Your task to perform on an android device: Go to settings Image 0: 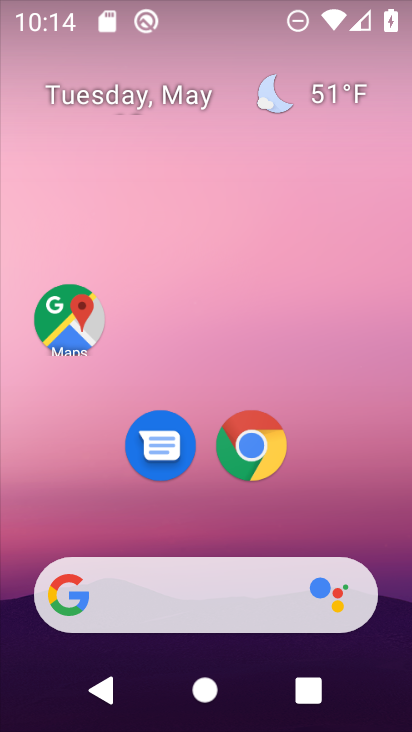
Step 0: drag from (160, 575) to (95, 72)
Your task to perform on an android device: Go to settings Image 1: 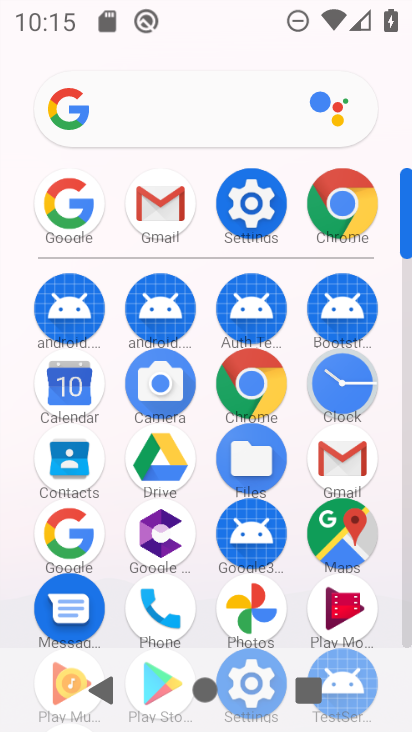
Step 1: click (242, 201)
Your task to perform on an android device: Go to settings Image 2: 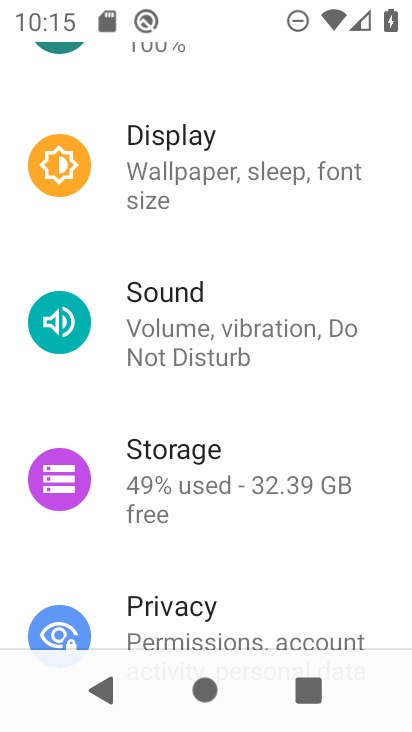
Step 2: task complete